Your task to perform on an android device: uninstall "TextNow: Call + Text Unlimited" Image 0: 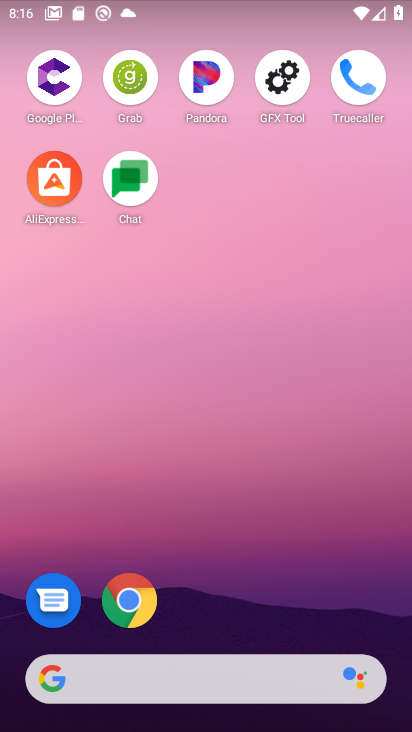
Step 0: press home button
Your task to perform on an android device: uninstall "TextNow: Call + Text Unlimited" Image 1: 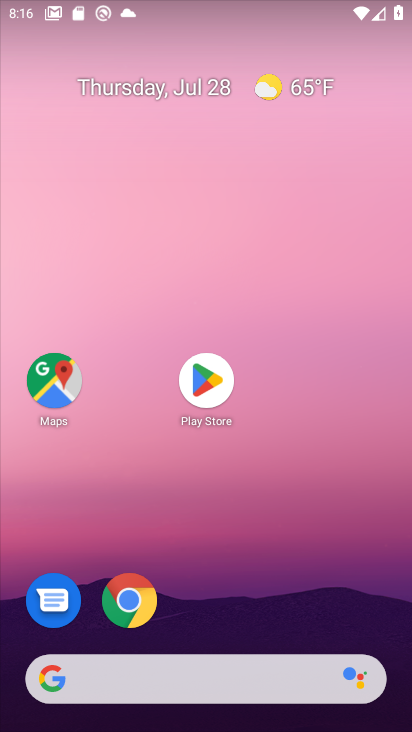
Step 1: click (210, 385)
Your task to perform on an android device: uninstall "TextNow: Call + Text Unlimited" Image 2: 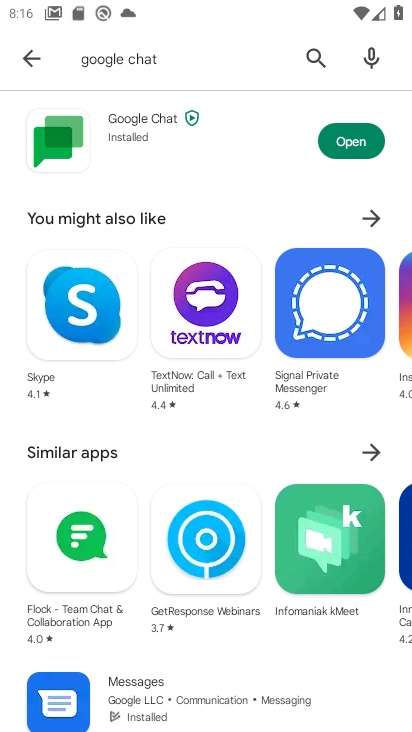
Step 2: click (313, 49)
Your task to perform on an android device: uninstall "TextNow: Call + Text Unlimited" Image 3: 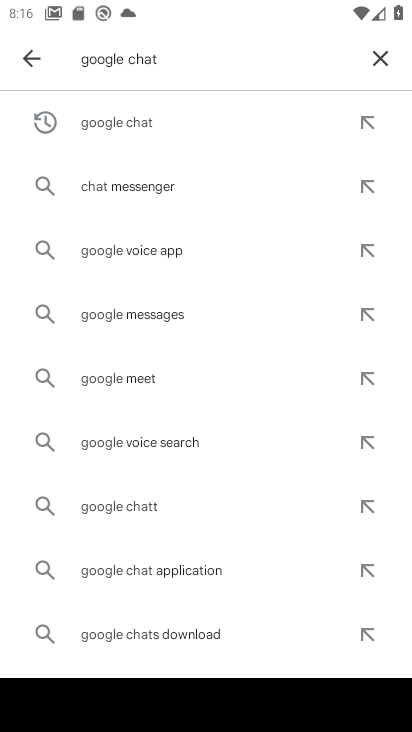
Step 3: click (378, 60)
Your task to perform on an android device: uninstall "TextNow: Call + Text Unlimited" Image 4: 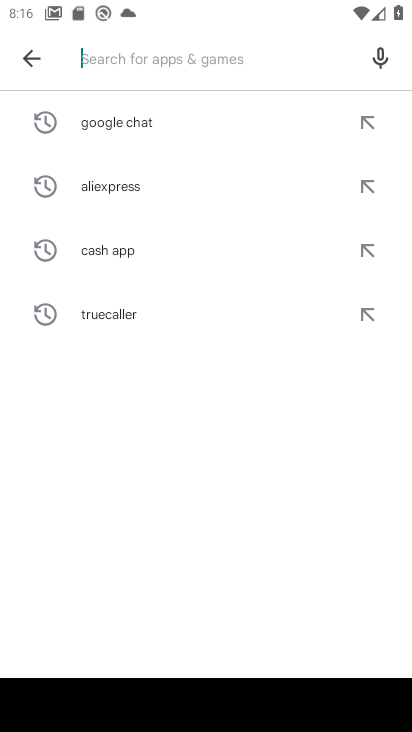
Step 4: type "TextNow: Call + Text Unlimited"
Your task to perform on an android device: uninstall "TextNow: Call + Text Unlimited" Image 5: 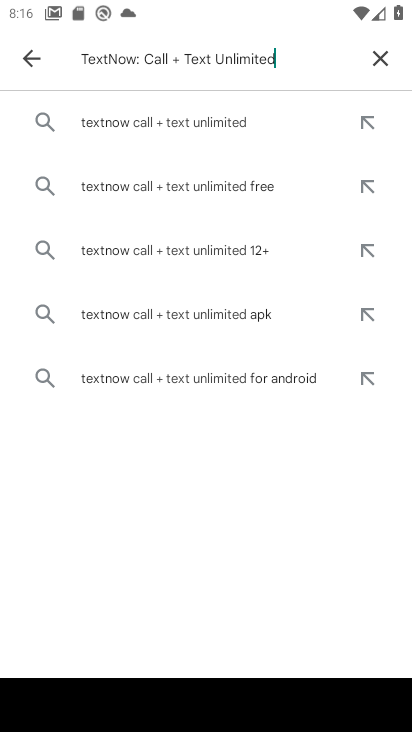
Step 5: click (176, 119)
Your task to perform on an android device: uninstall "TextNow: Call + Text Unlimited" Image 6: 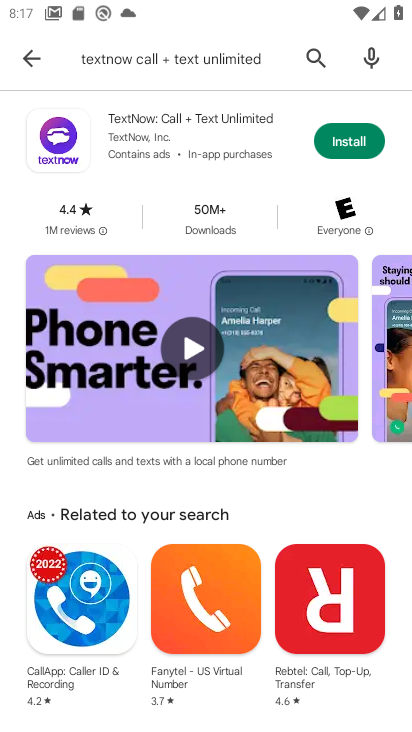
Step 6: task complete